Your task to perform on an android device: Add usb-c to usb-b to the cart on newegg.com, then select checkout. Image 0: 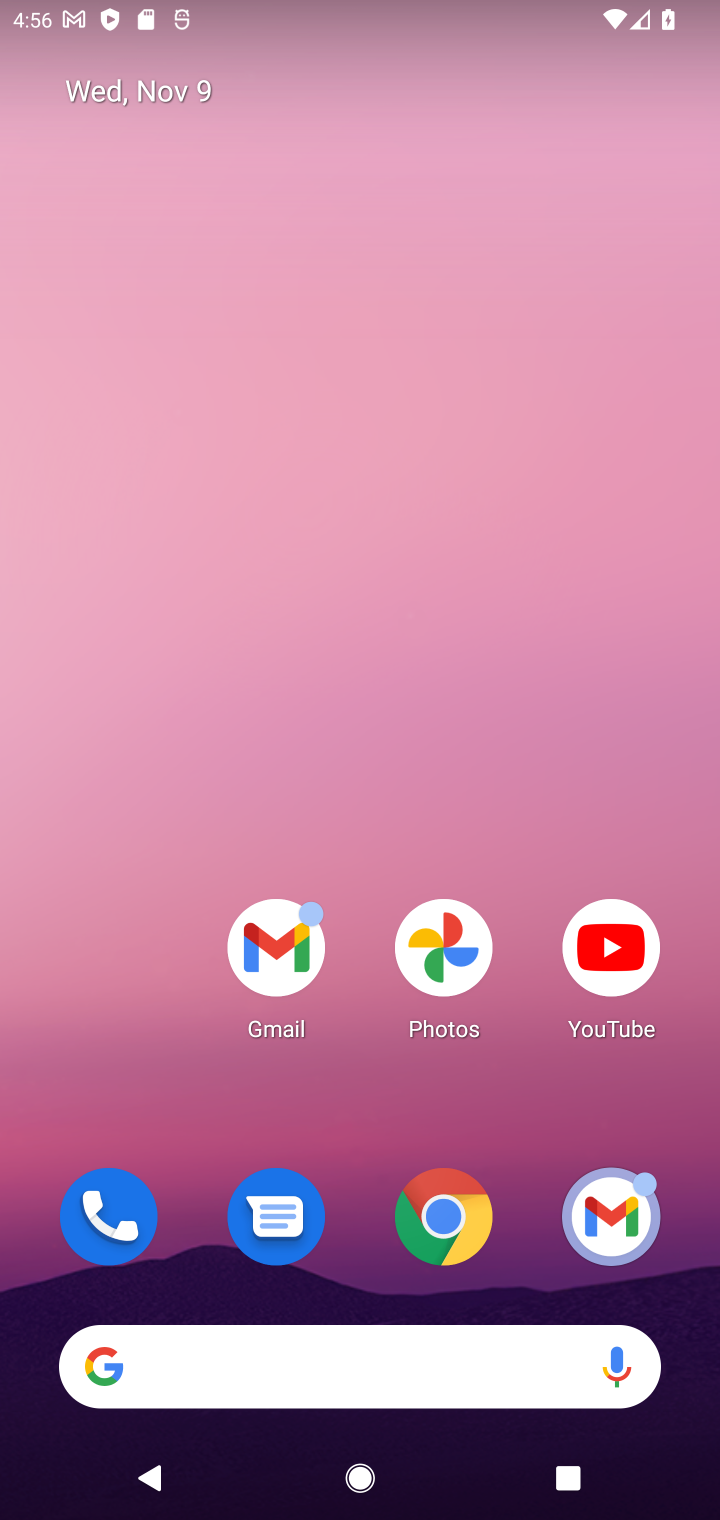
Step 0: drag from (354, 1133) to (389, 176)
Your task to perform on an android device: Add usb-c to usb-b to the cart on newegg.com, then select checkout. Image 1: 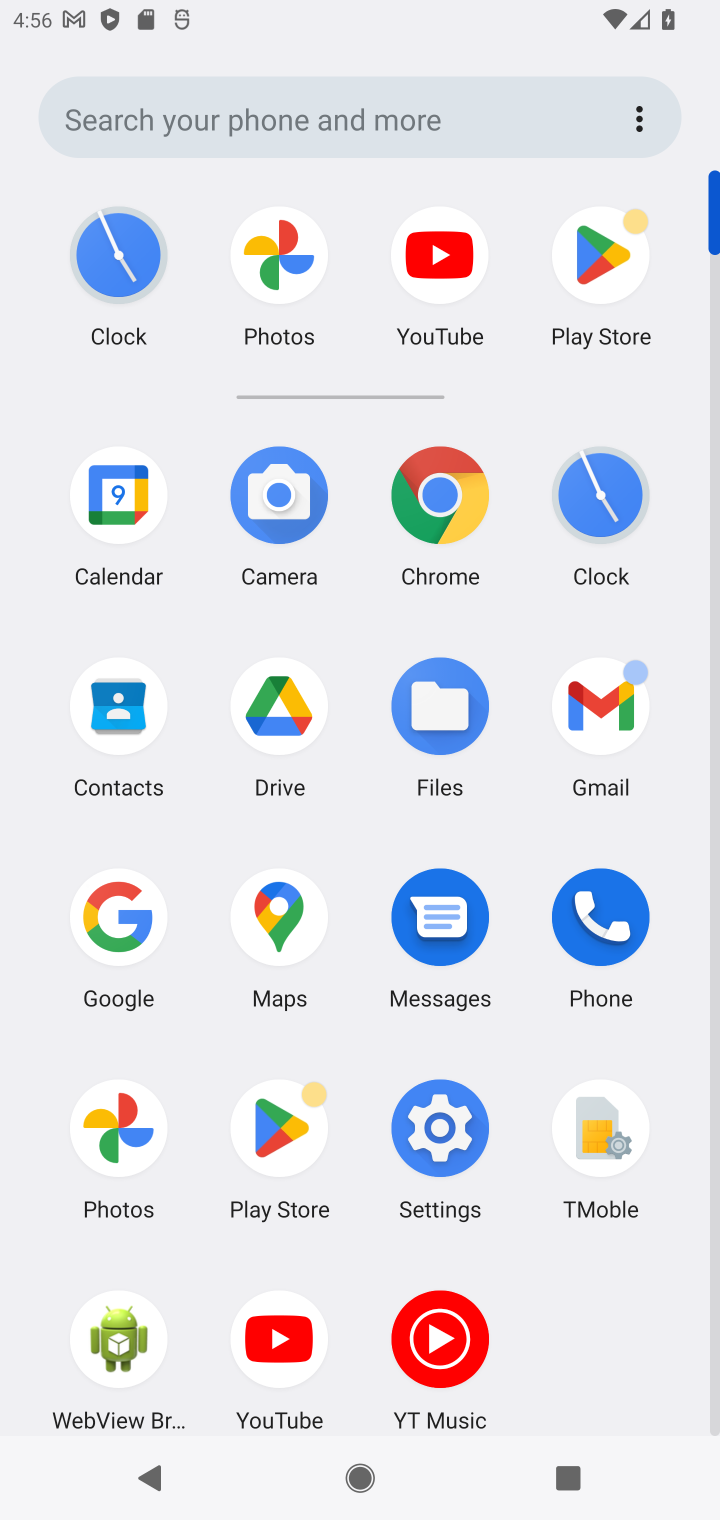
Step 1: click (450, 500)
Your task to perform on an android device: Add usb-c to usb-b to the cart on newegg.com, then select checkout. Image 2: 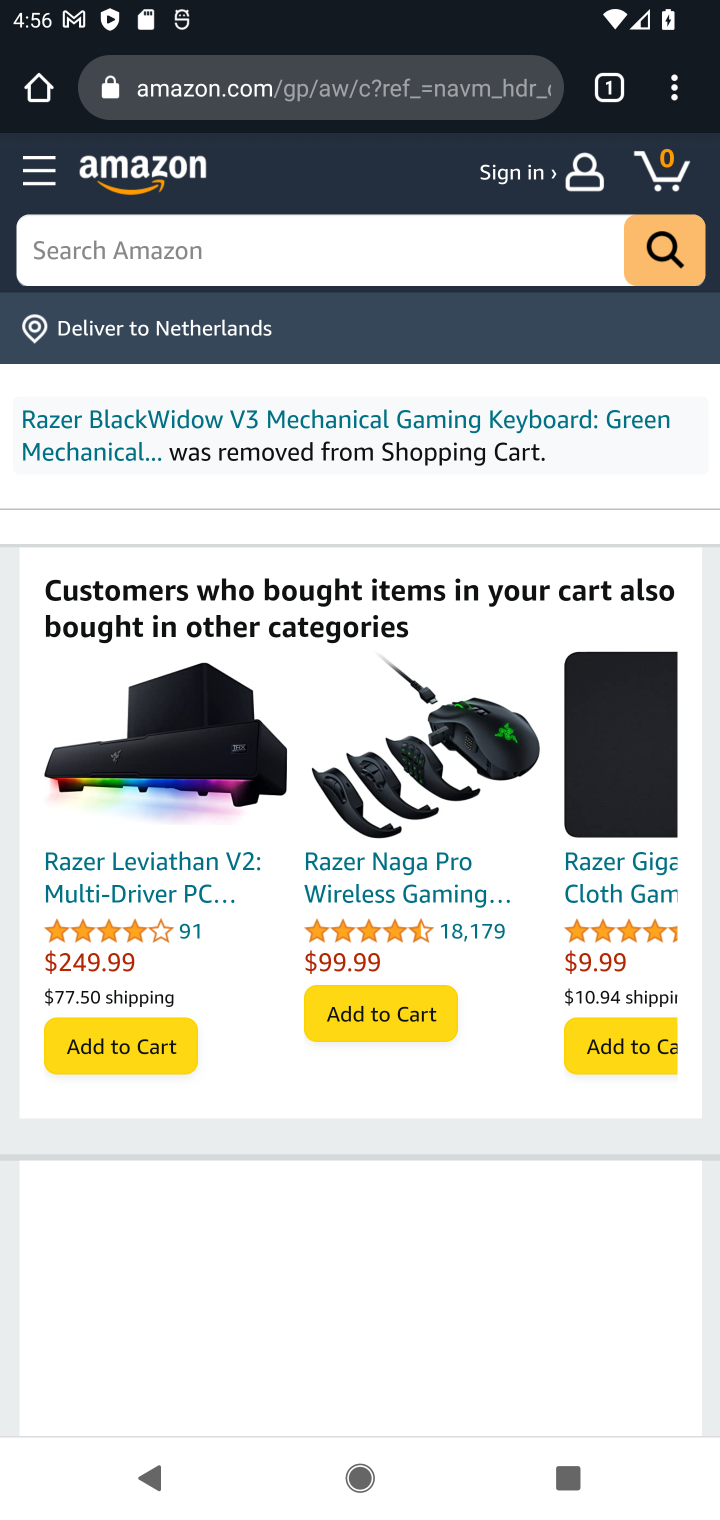
Step 2: click (335, 93)
Your task to perform on an android device: Add usb-c to usb-b to the cart on newegg.com, then select checkout. Image 3: 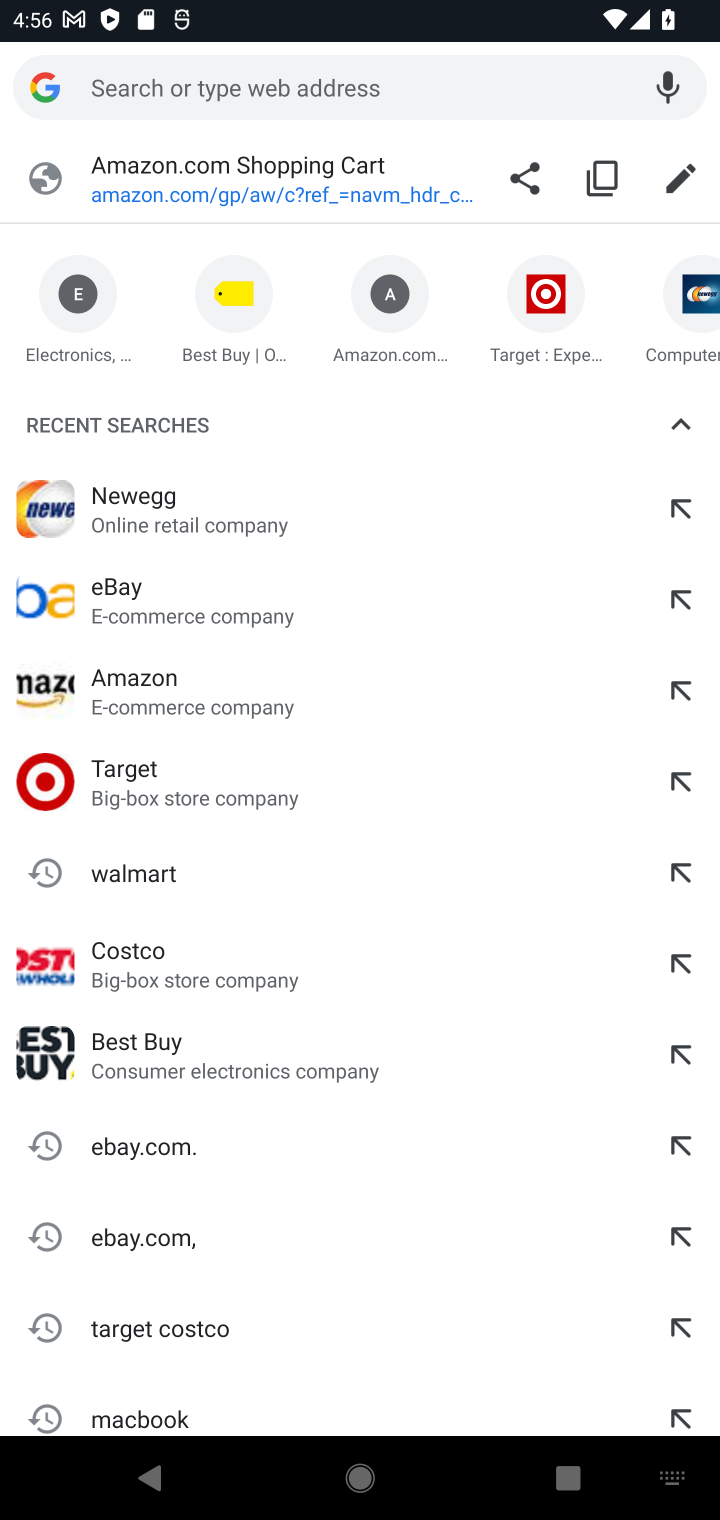
Step 3: type "newegg.com"
Your task to perform on an android device: Add usb-c to usb-b to the cart on newegg.com, then select checkout. Image 4: 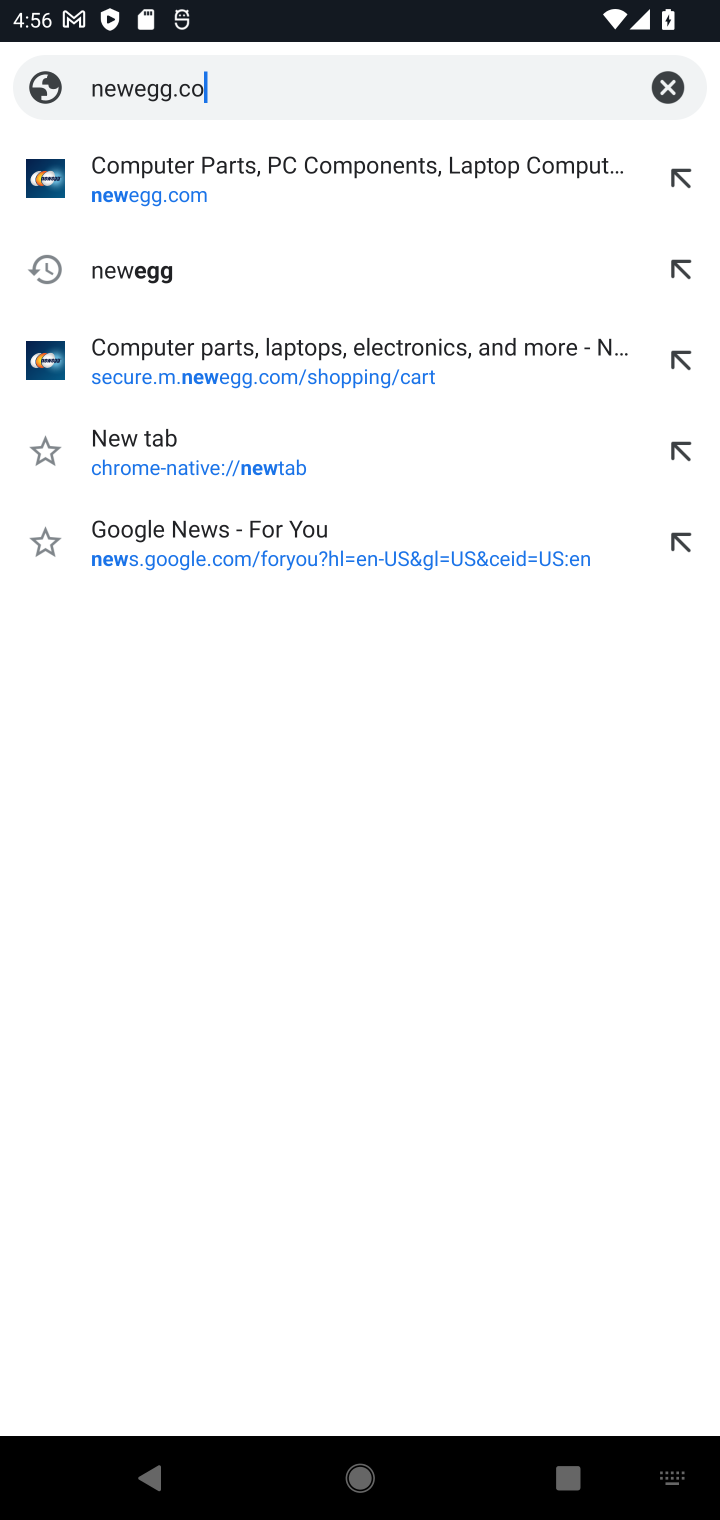
Step 4: press enter
Your task to perform on an android device: Add usb-c to usb-b to the cart on newegg.com, then select checkout. Image 5: 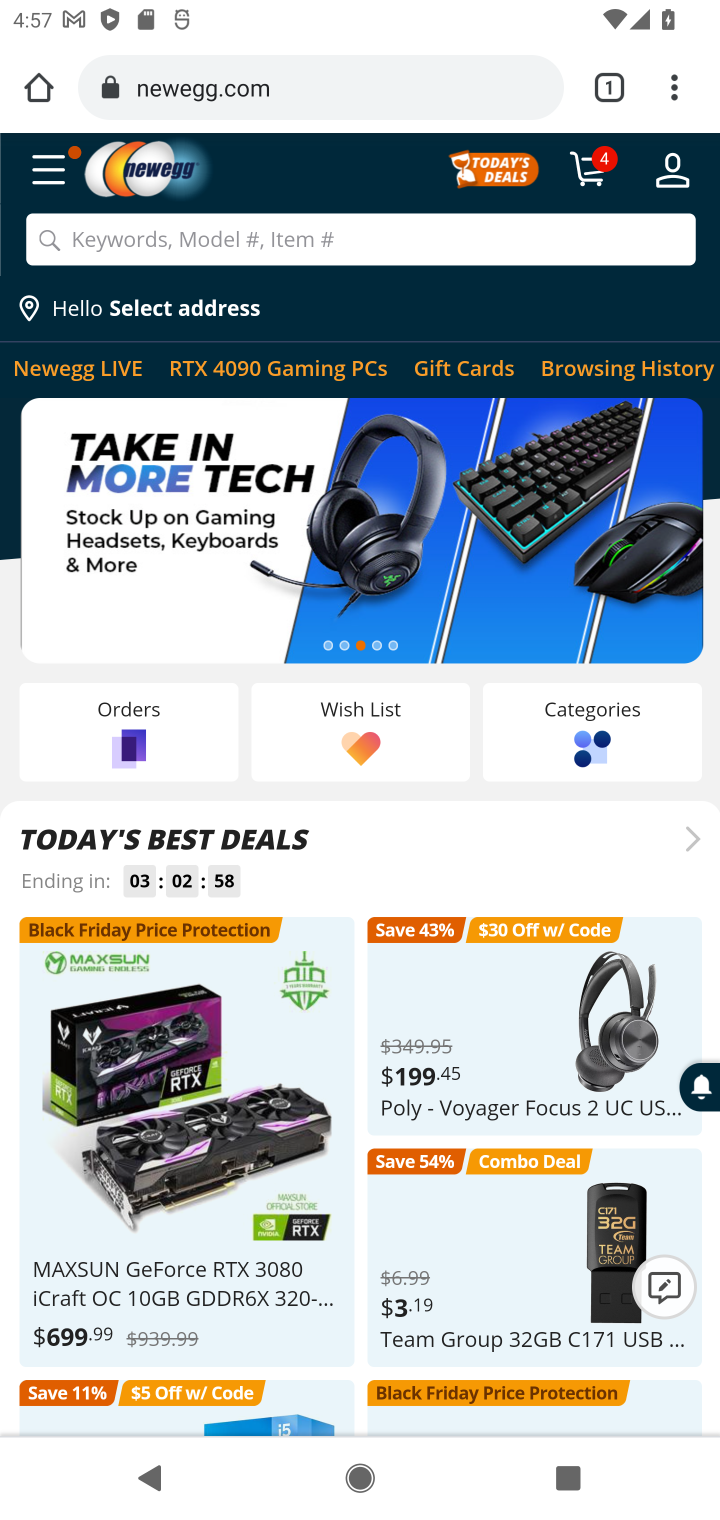
Step 5: click (590, 220)
Your task to perform on an android device: Add usb-c to usb-b to the cart on newegg.com, then select checkout. Image 6: 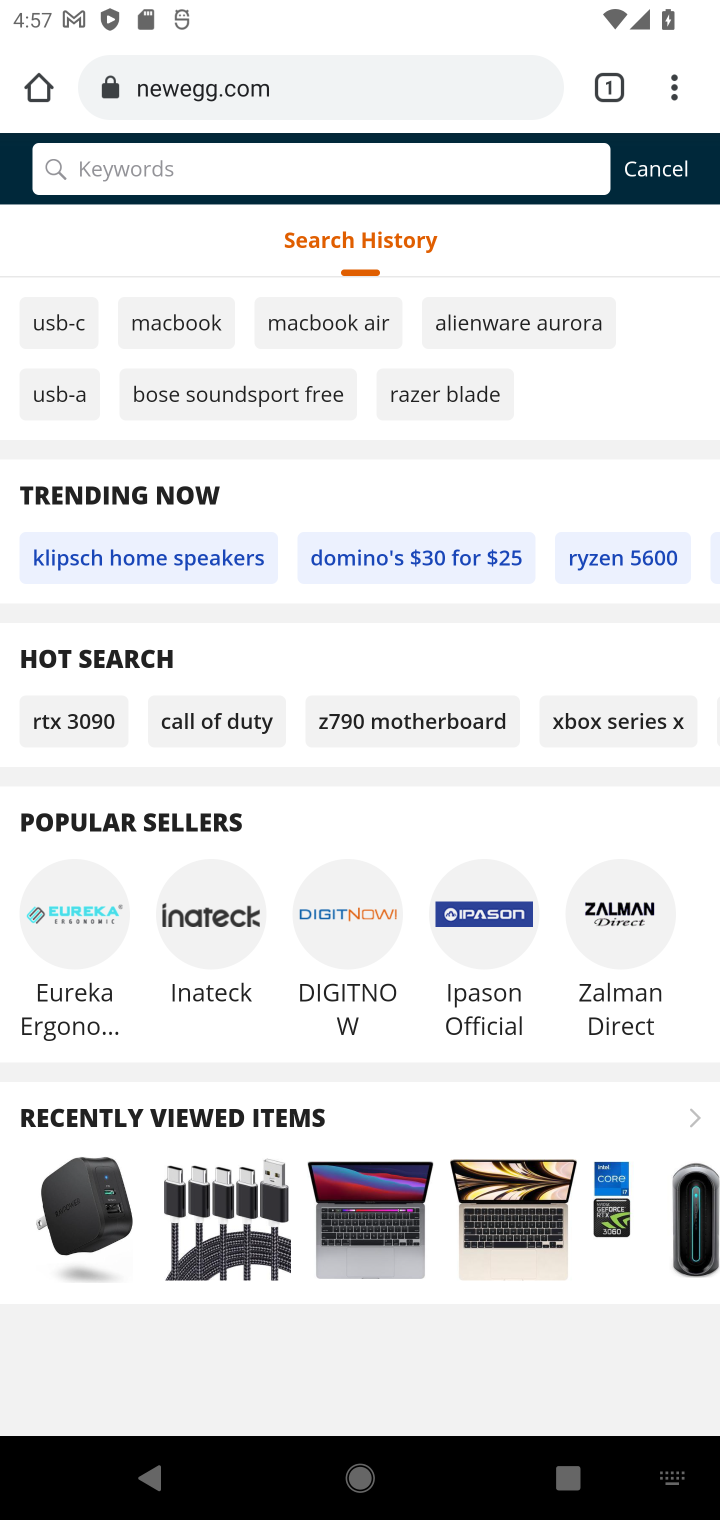
Step 6: type "usb-c to usb-b"
Your task to perform on an android device: Add usb-c to usb-b to the cart on newegg.com, then select checkout. Image 7: 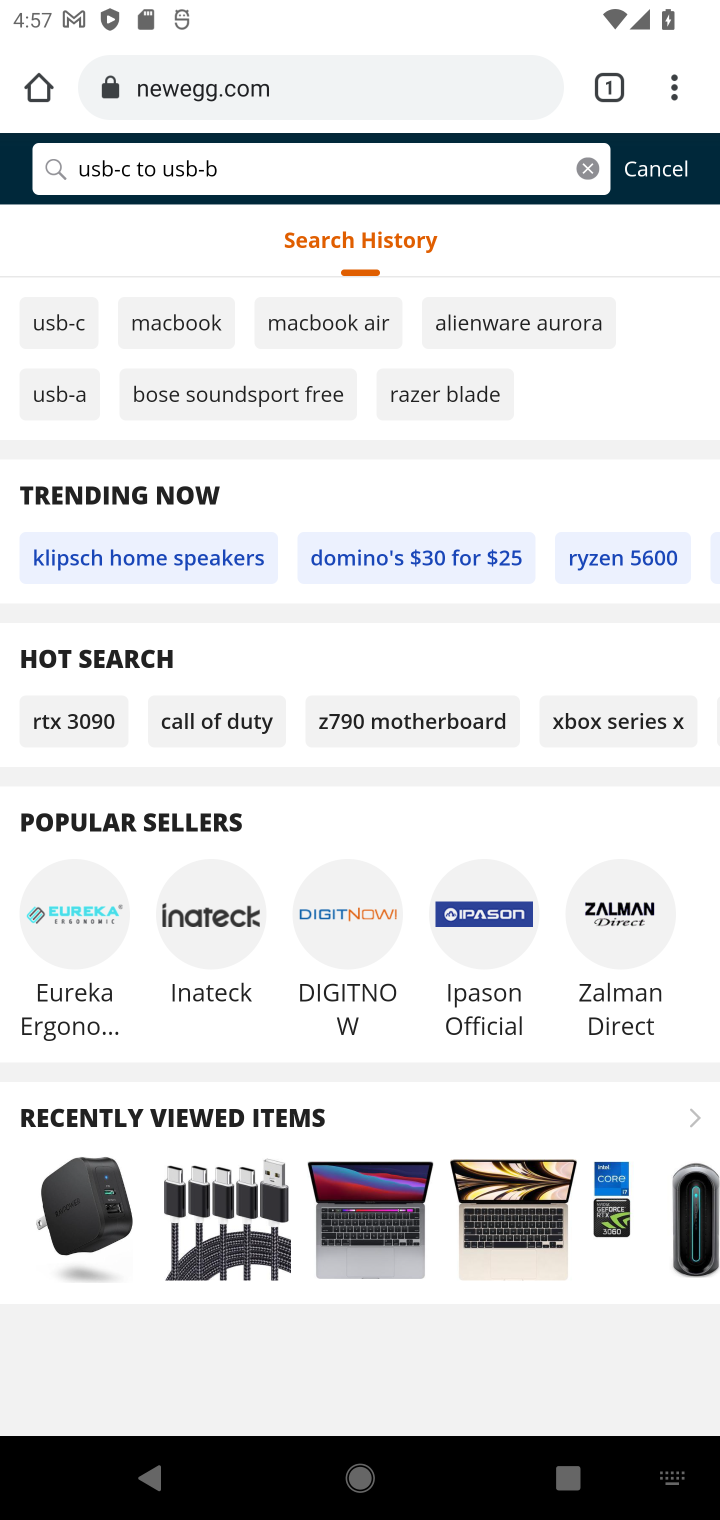
Step 7: press enter
Your task to perform on an android device: Add usb-c to usb-b to the cart on newegg.com, then select checkout. Image 8: 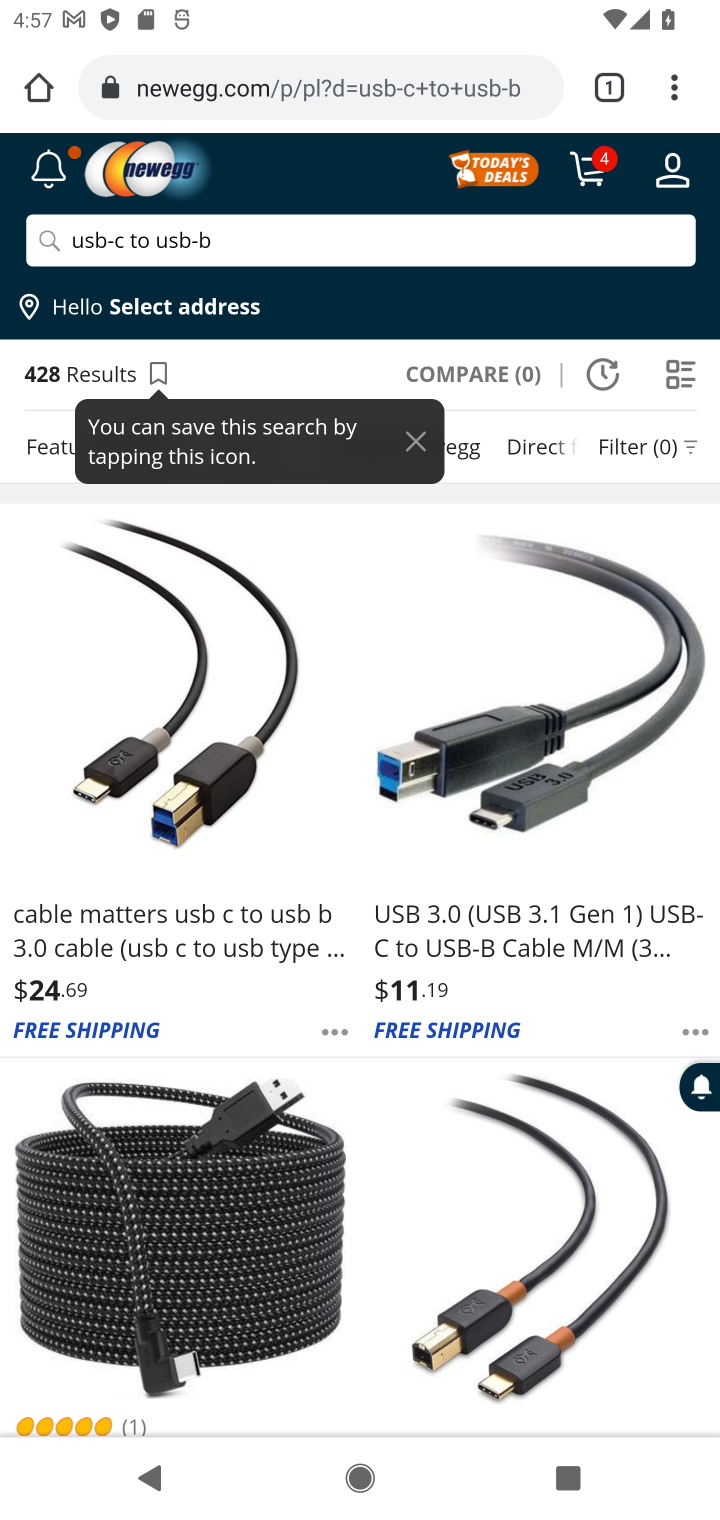
Step 8: click (221, 804)
Your task to perform on an android device: Add usb-c to usb-b to the cart on newegg.com, then select checkout. Image 9: 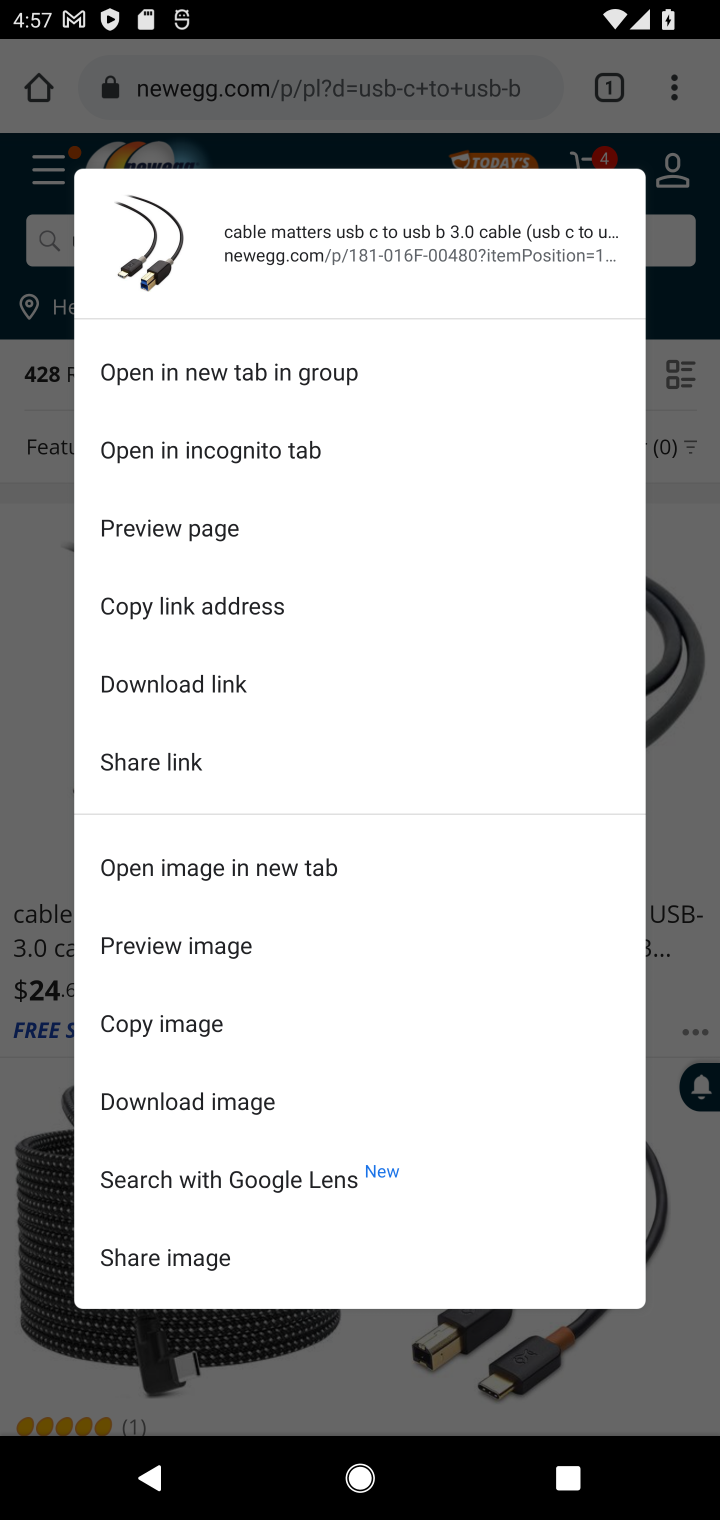
Step 9: click (38, 729)
Your task to perform on an android device: Add usb-c to usb-b to the cart on newegg.com, then select checkout. Image 10: 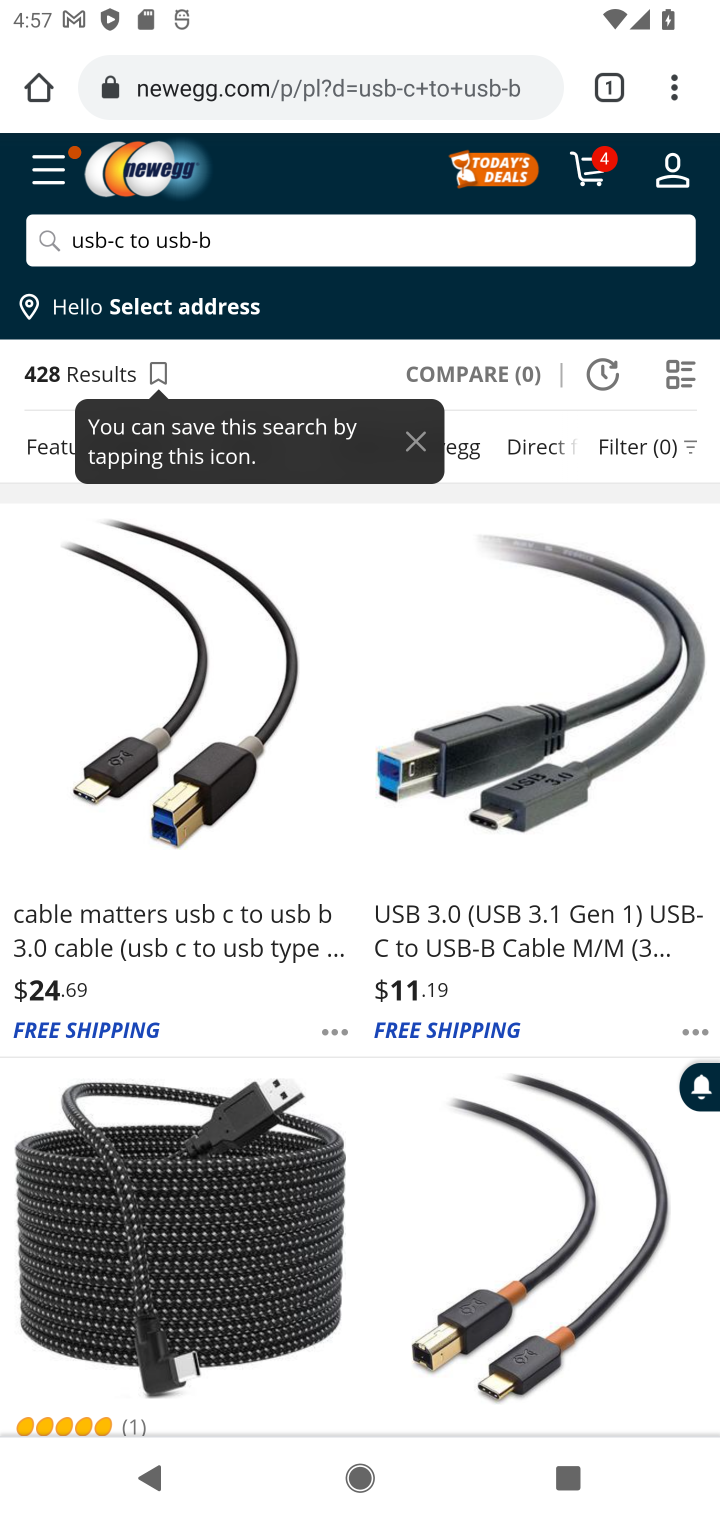
Step 10: click (171, 802)
Your task to perform on an android device: Add usb-c to usb-b to the cart on newegg.com, then select checkout. Image 11: 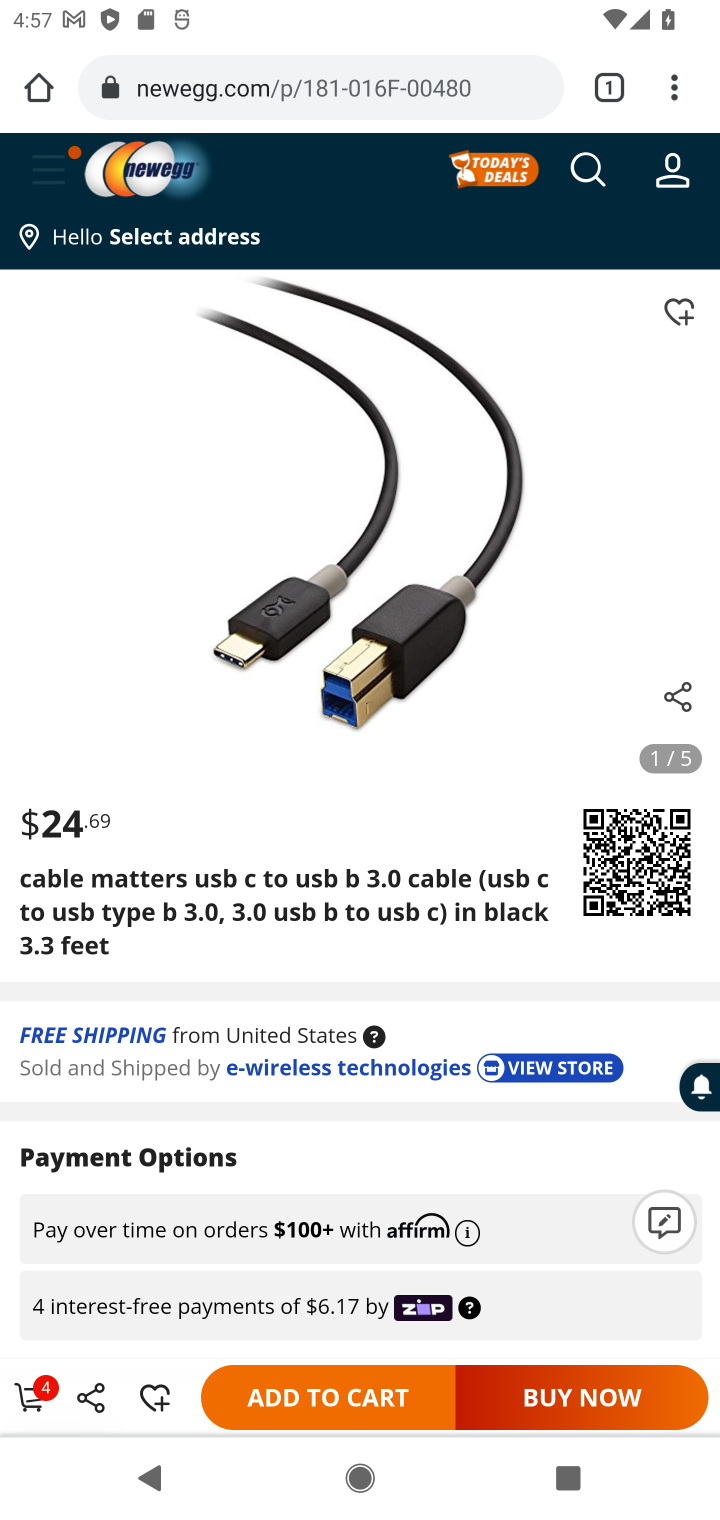
Step 11: click (376, 1387)
Your task to perform on an android device: Add usb-c to usb-b to the cart on newegg.com, then select checkout. Image 12: 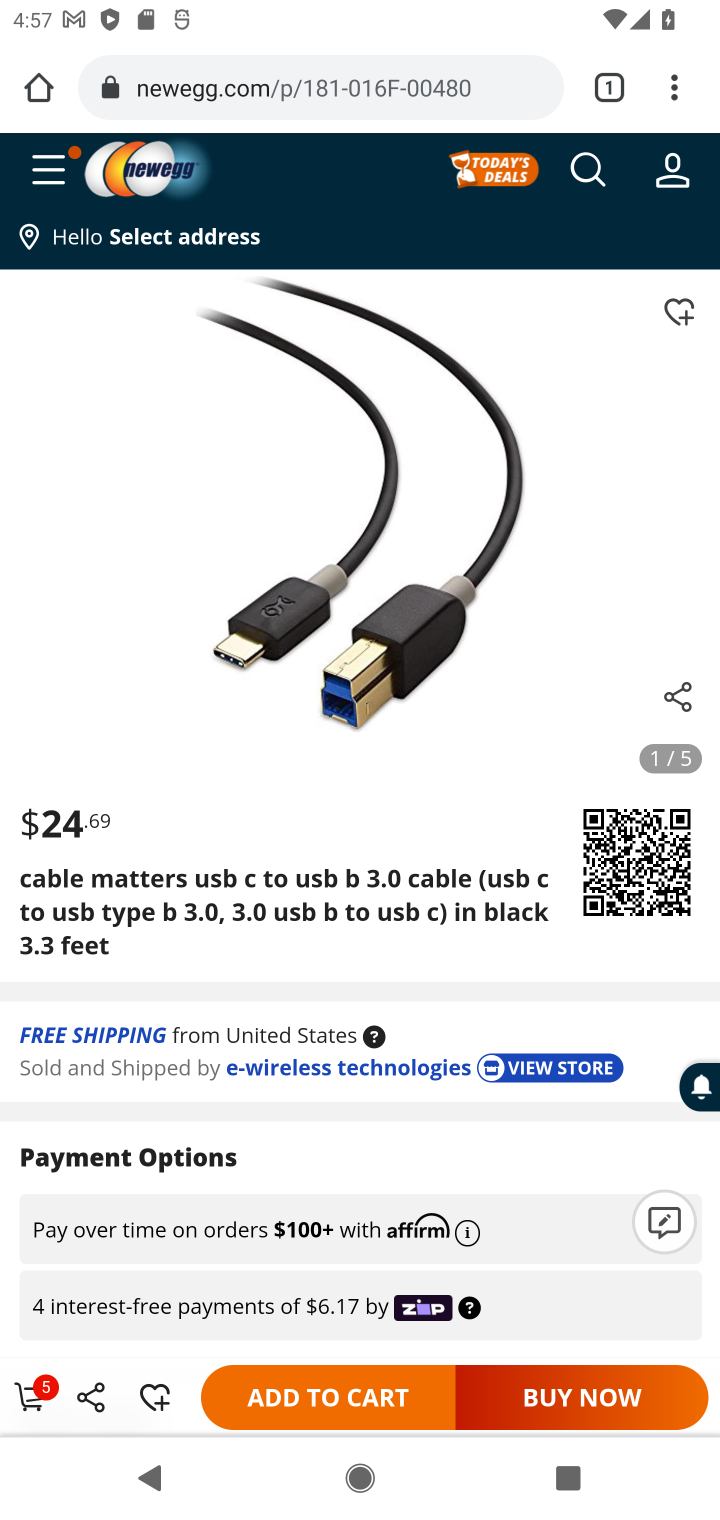
Step 12: click (40, 1398)
Your task to perform on an android device: Add usb-c to usb-b to the cart on newegg.com, then select checkout. Image 13: 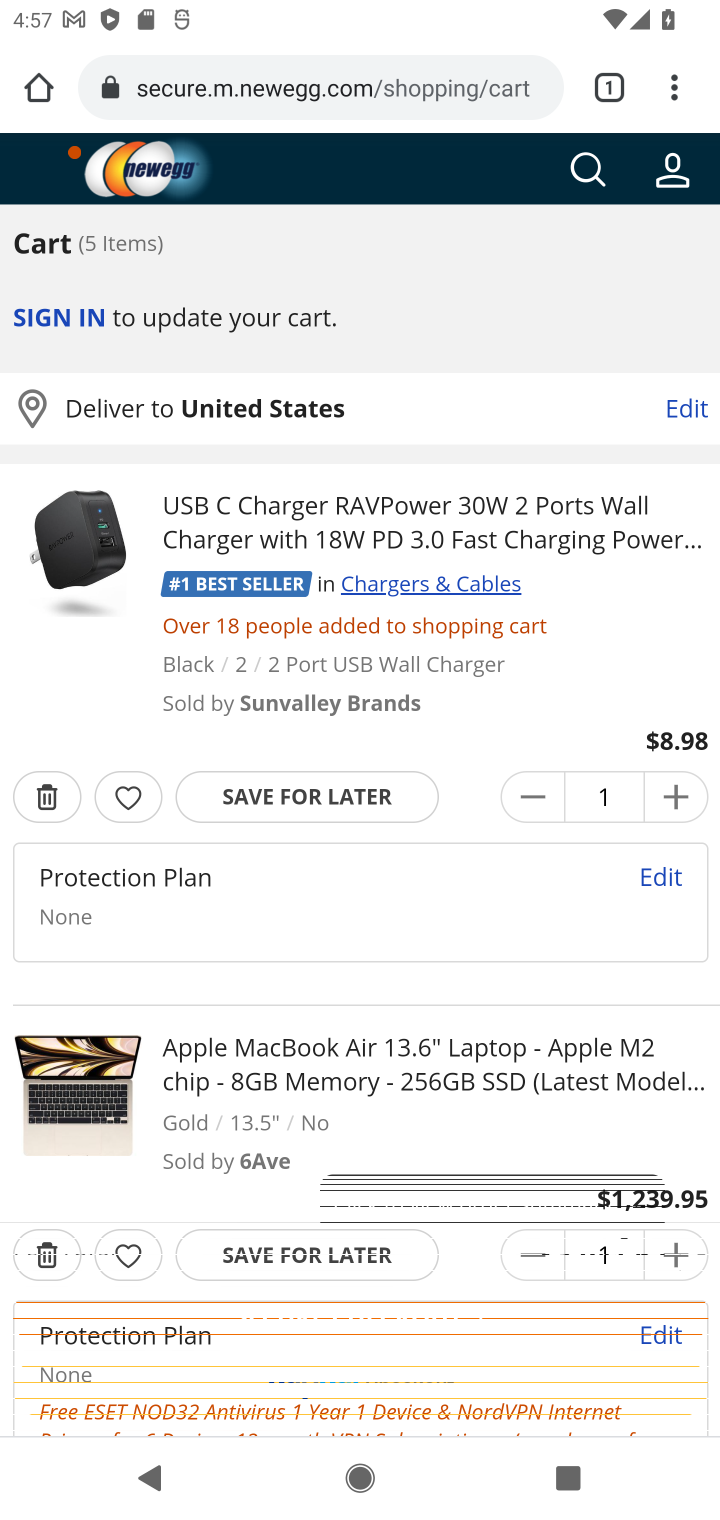
Step 13: click (391, 1310)
Your task to perform on an android device: Add usb-c to usb-b to the cart on newegg.com, then select checkout. Image 14: 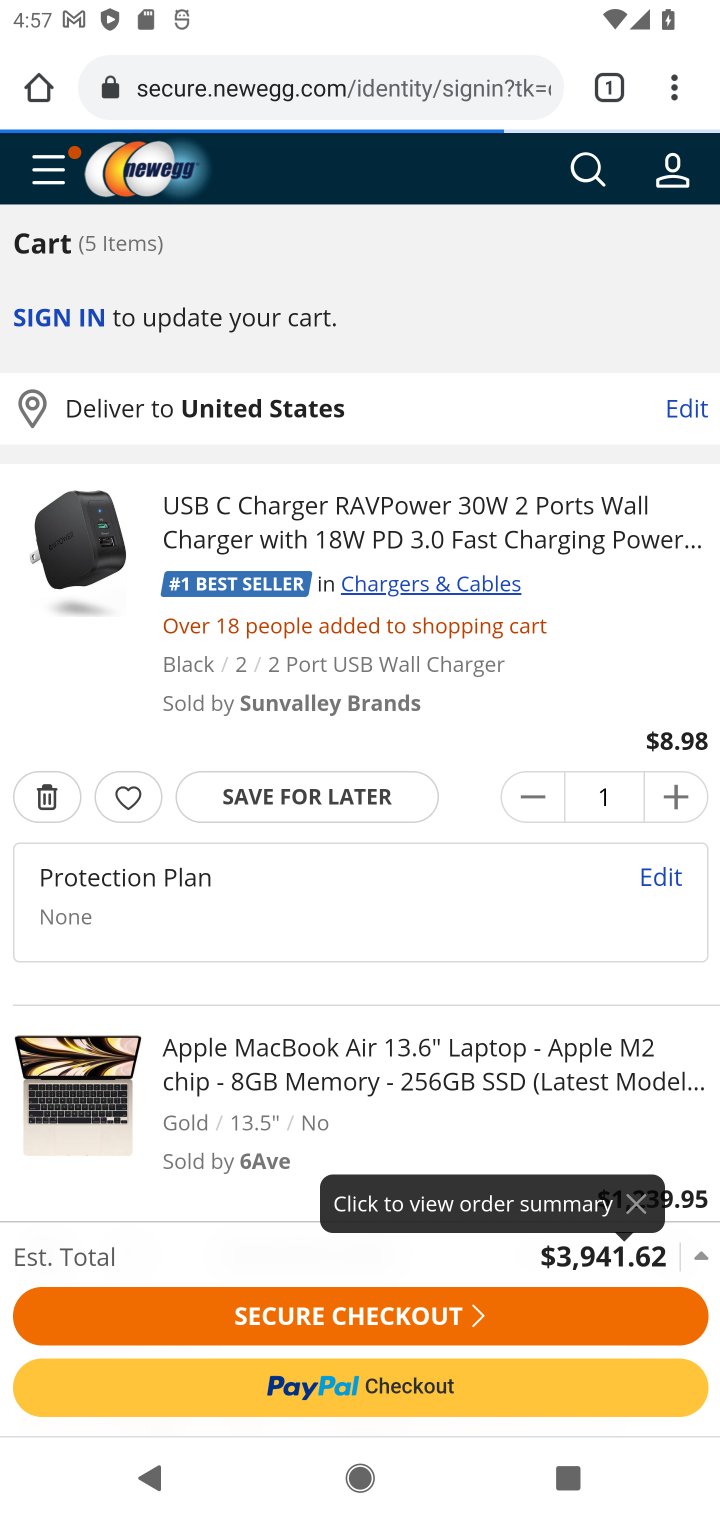
Step 14: click (391, 1310)
Your task to perform on an android device: Add usb-c to usb-b to the cart on newegg.com, then select checkout. Image 15: 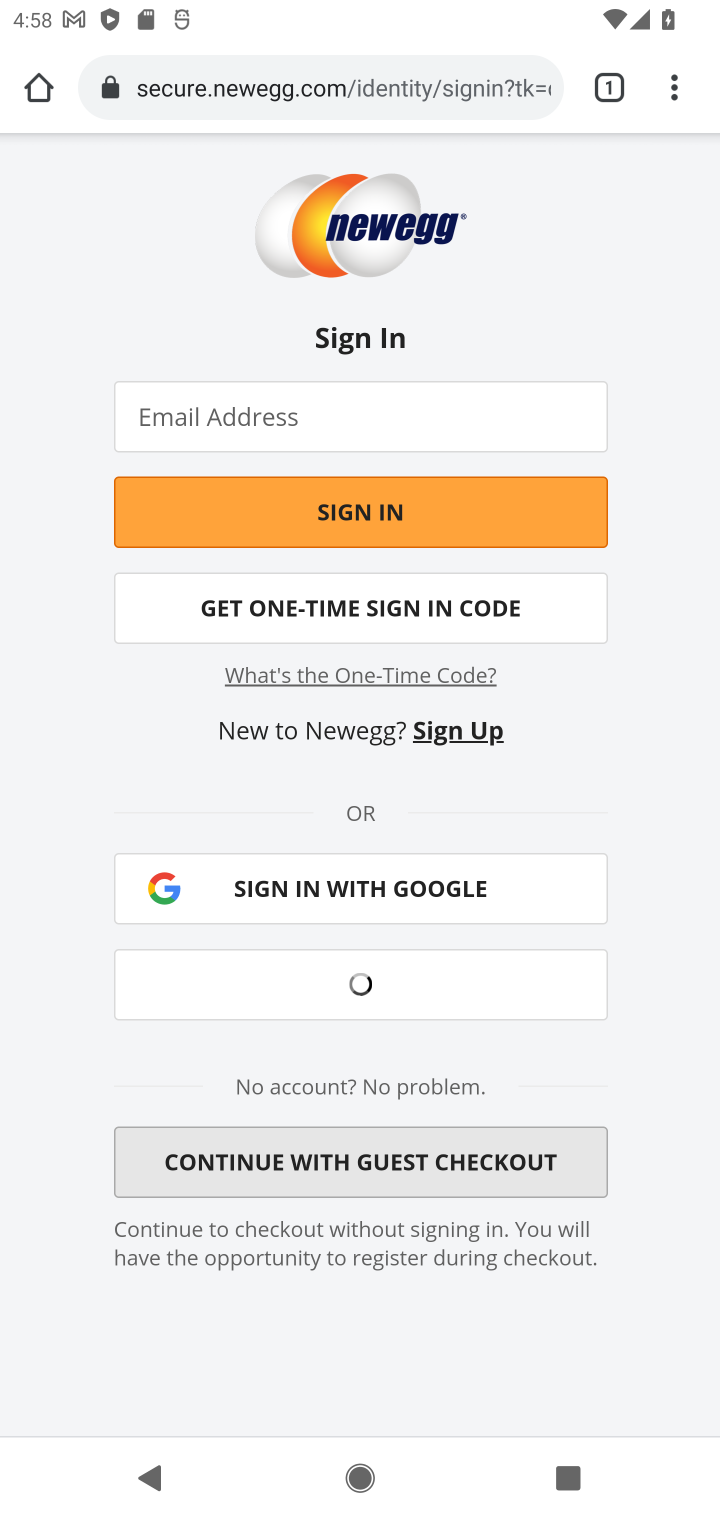
Step 15: task complete